Your task to perform on an android device: toggle show notifications on the lock screen Image 0: 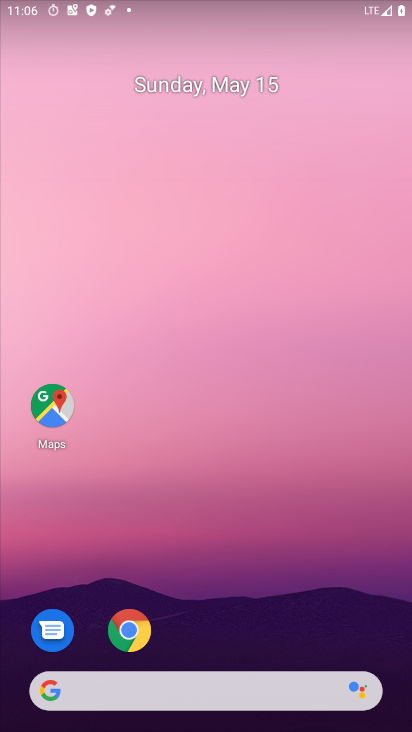
Step 0: drag from (223, 625) to (248, 121)
Your task to perform on an android device: toggle show notifications on the lock screen Image 1: 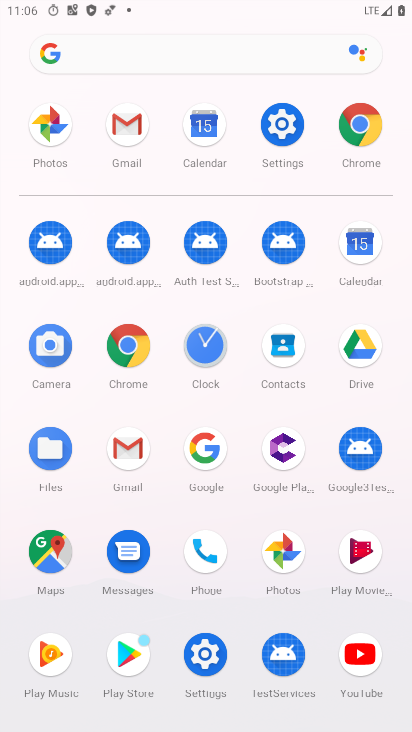
Step 1: click (298, 137)
Your task to perform on an android device: toggle show notifications on the lock screen Image 2: 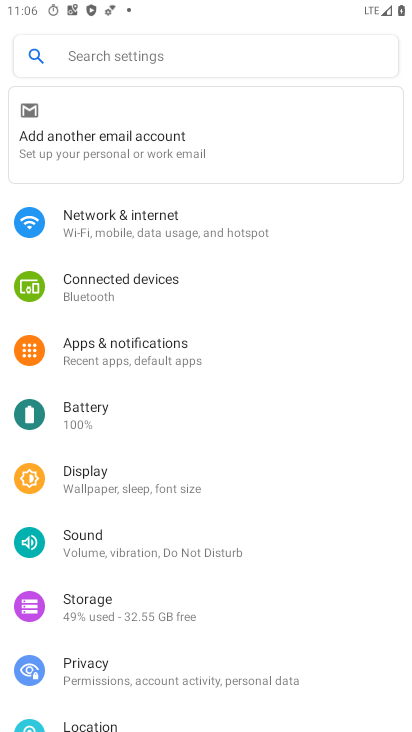
Step 2: click (173, 347)
Your task to perform on an android device: toggle show notifications on the lock screen Image 3: 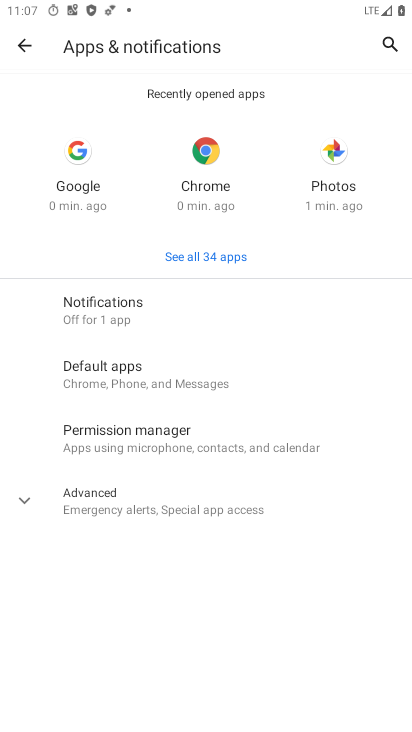
Step 3: click (141, 309)
Your task to perform on an android device: toggle show notifications on the lock screen Image 4: 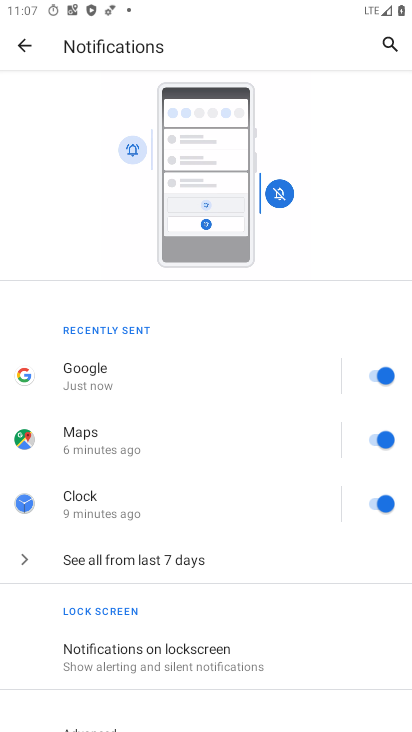
Step 4: click (192, 660)
Your task to perform on an android device: toggle show notifications on the lock screen Image 5: 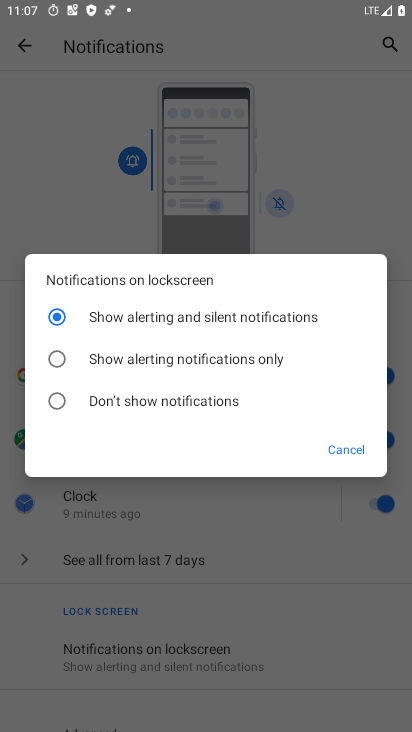
Step 5: task complete